Your task to perform on an android device: When is my next appointment? Image 0: 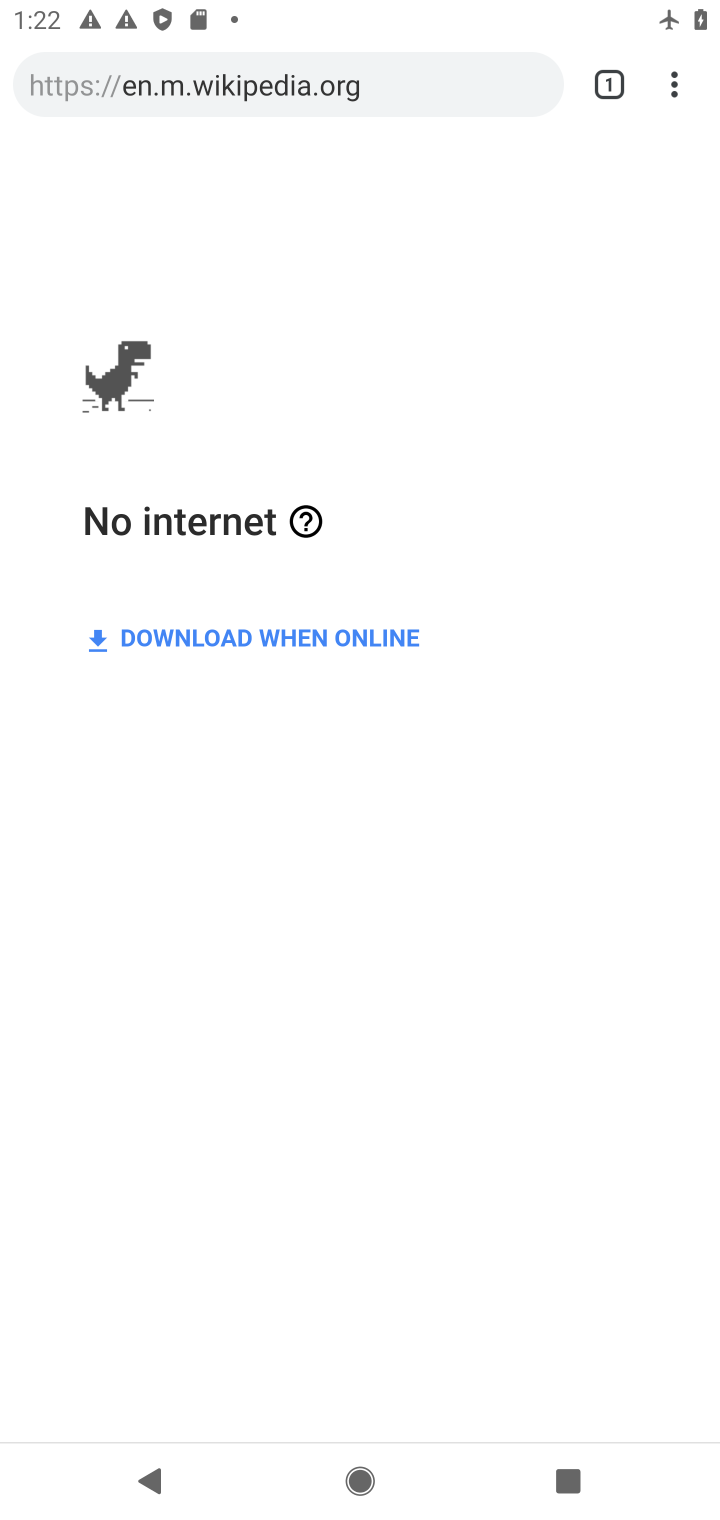
Step 0: press home button
Your task to perform on an android device: When is my next appointment? Image 1: 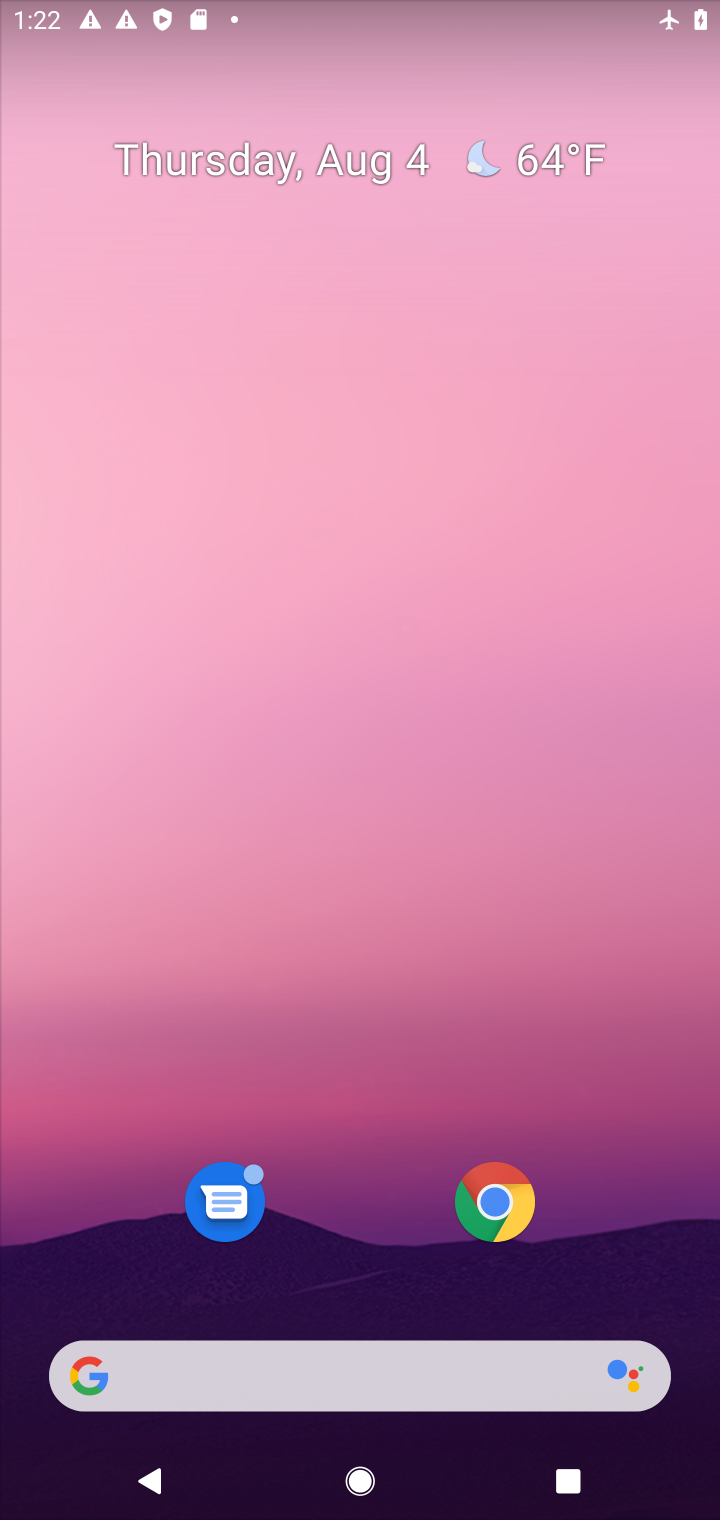
Step 1: drag from (623, 1262) to (615, 40)
Your task to perform on an android device: When is my next appointment? Image 2: 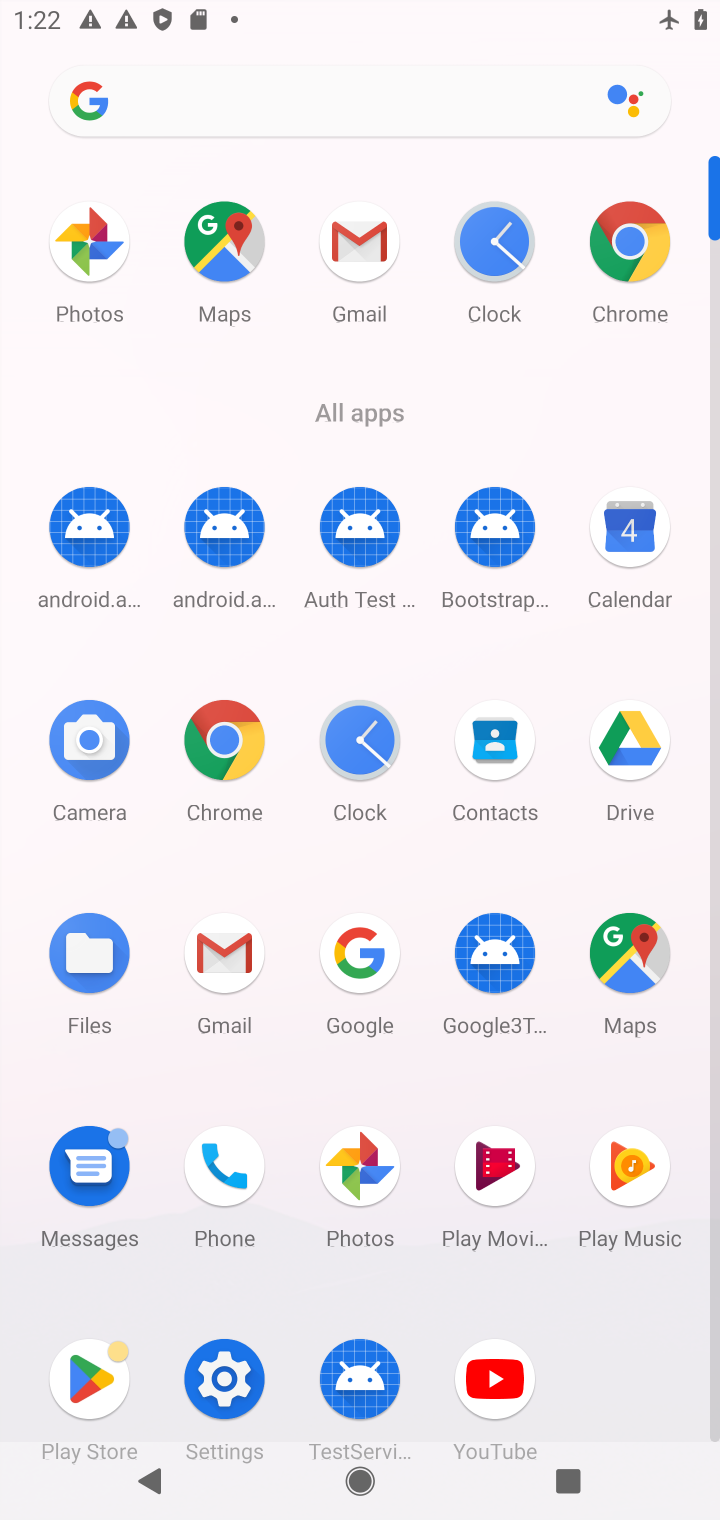
Step 2: click (639, 532)
Your task to perform on an android device: When is my next appointment? Image 3: 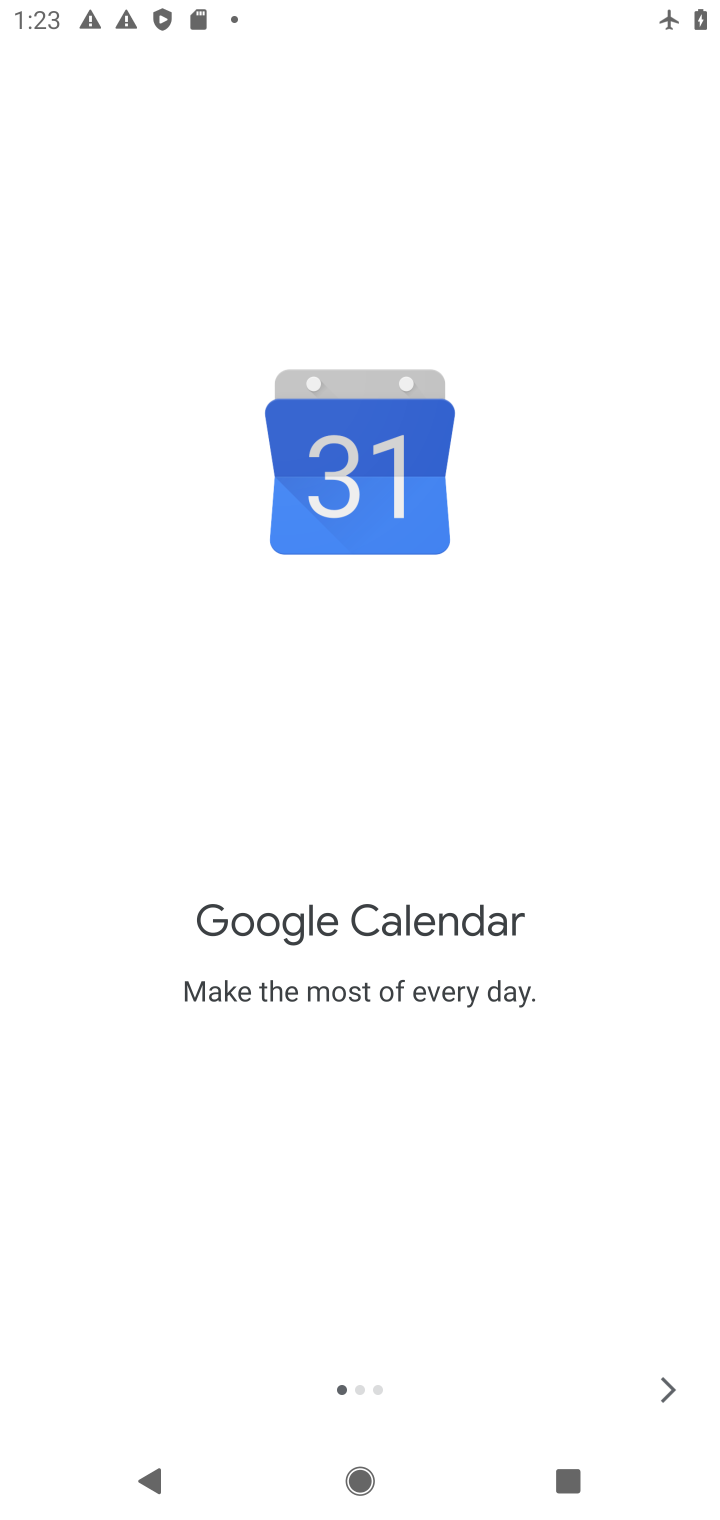
Step 3: click (671, 1396)
Your task to perform on an android device: When is my next appointment? Image 4: 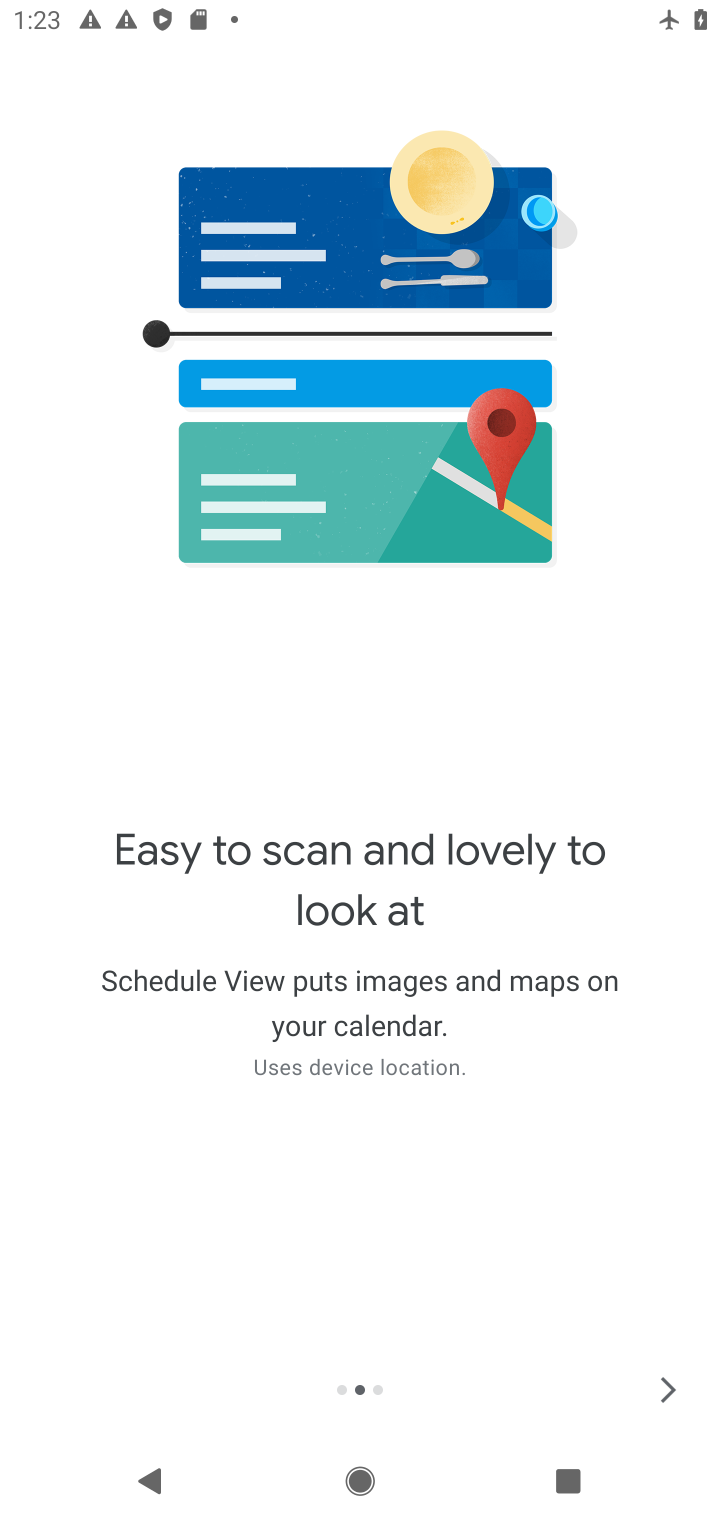
Step 4: click (671, 1386)
Your task to perform on an android device: When is my next appointment? Image 5: 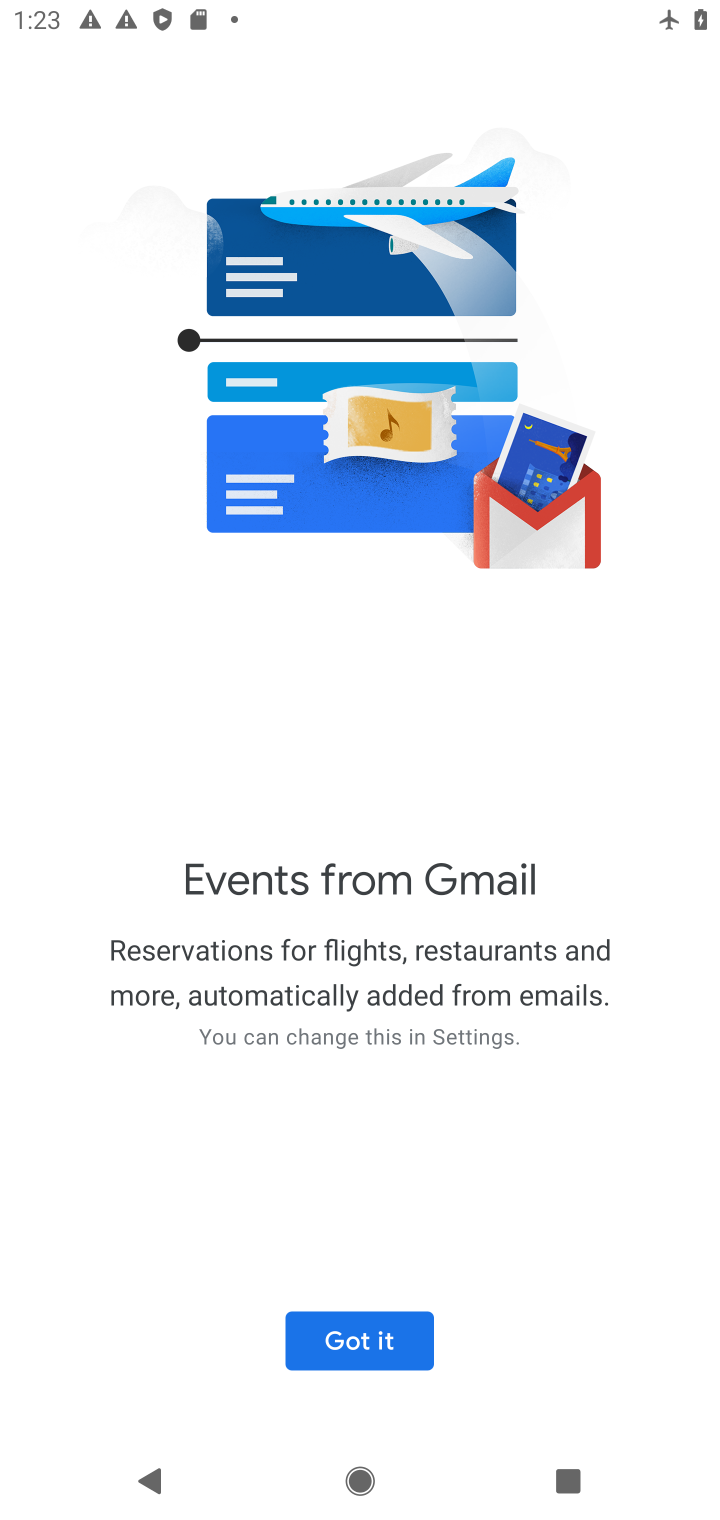
Step 5: click (370, 1336)
Your task to perform on an android device: When is my next appointment? Image 6: 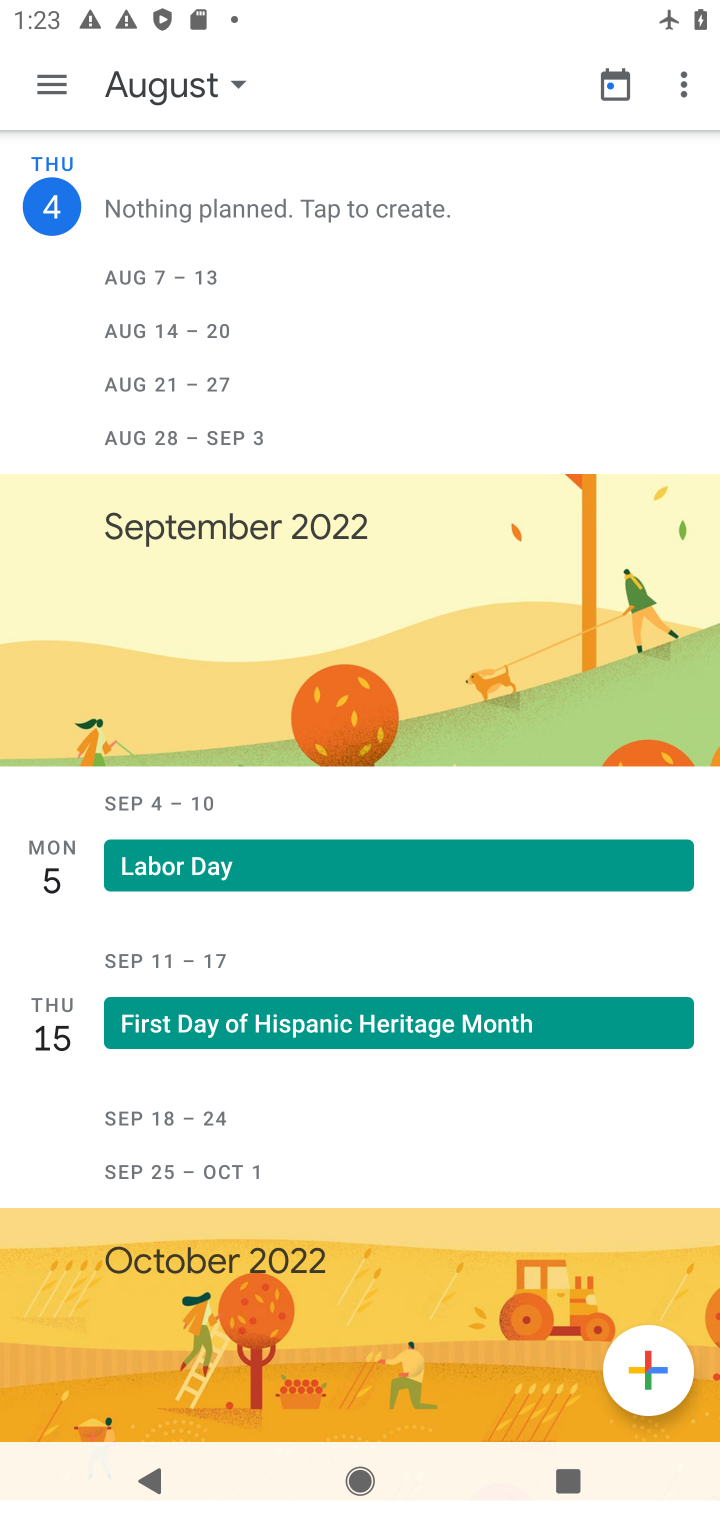
Step 6: task complete